Your task to perform on an android device: change alarm snooze length Image 0: 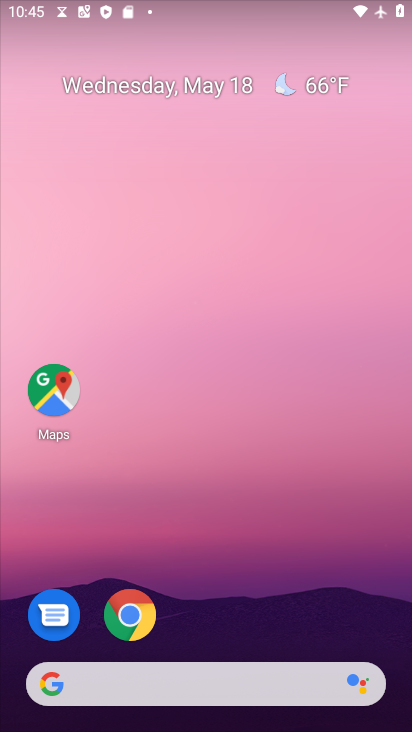
Step 0: drag from (186, 540) to (153, 29)
Your task to perform on an android device: change alarm snooze length Image 1: 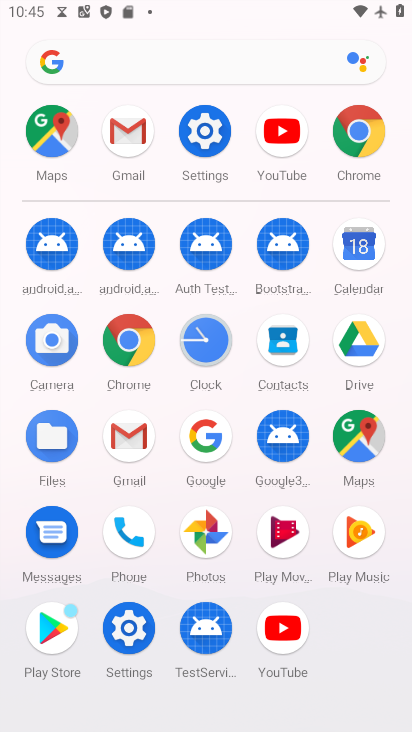
Step 1: click (7, 222)
Your task to perform on an android device: change alarm snooze length Image 2: 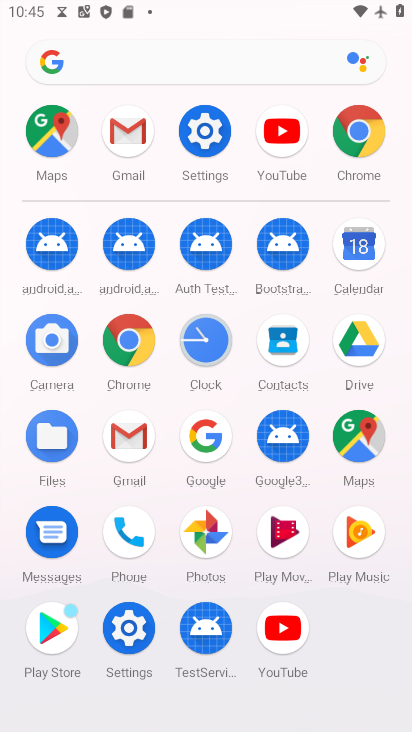
Step 2: click (207, 337)
Your task to perform on an android device: change alarm snooze length Image 3: 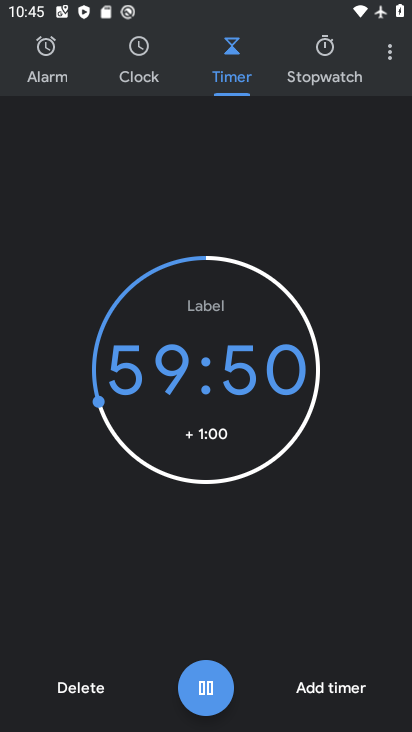
Step 3: drag from (384, 60) to (289, 103)
Your task to perform on an android device: change alarm snooze length Image 4: 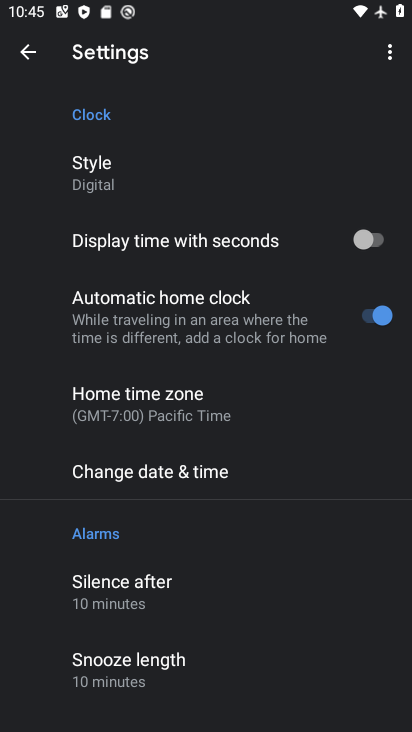
Step 4: drag from (237, 558) to (221, 191)
Your task to perform on an android device: change alarm snooze length Image 5: 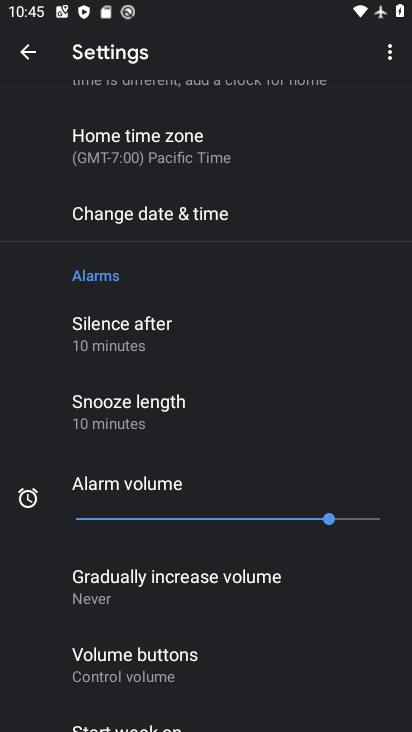
Step 5: click (154, 404)
Your task to perform on an android device: change alarm snooze length Image 6: 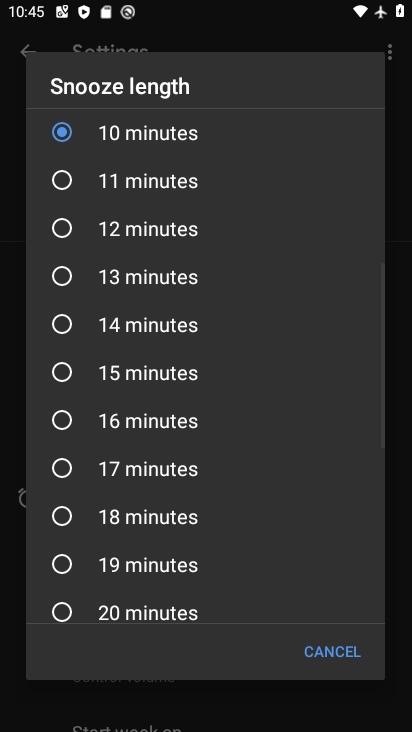
Step 6: click (124, 188)
Your task to perform on an android device: change alarm snooze length Image 7: 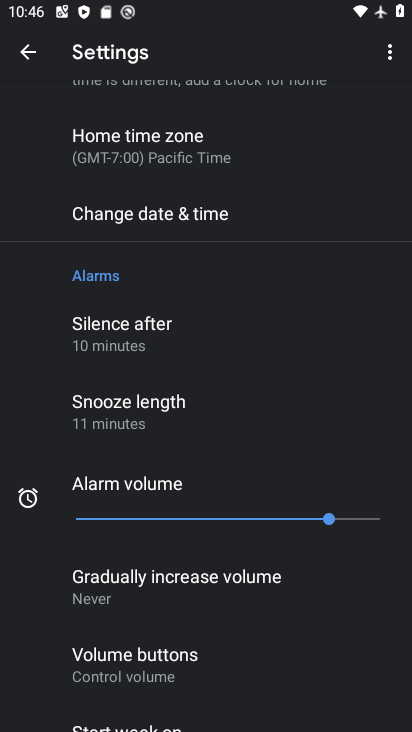
Step 7: task complete